Your task to perform on an android device: Open Amazon Image 0: 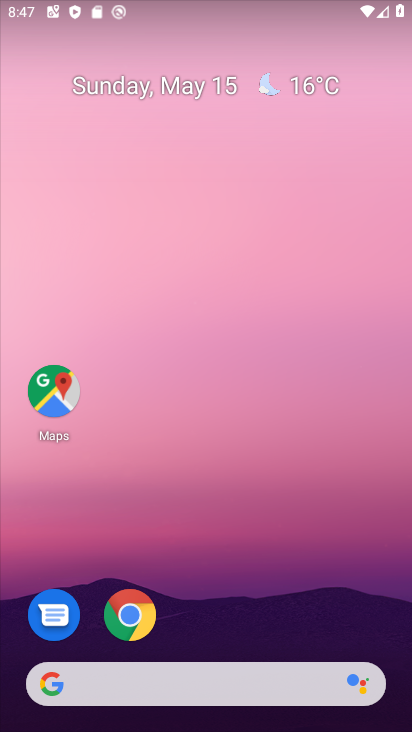
Step 0: click (136, 626)
Your task to perform on an android device: Open Amazon Image 1: 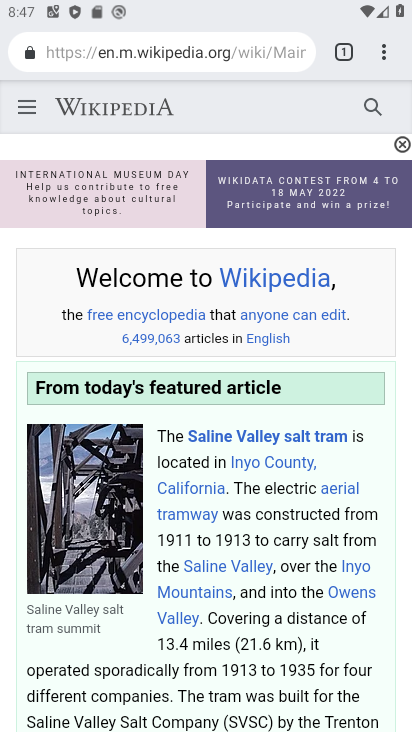
Step 1: click (349, 54)
Your task to perform on an android device: Open Amazon Image 2: 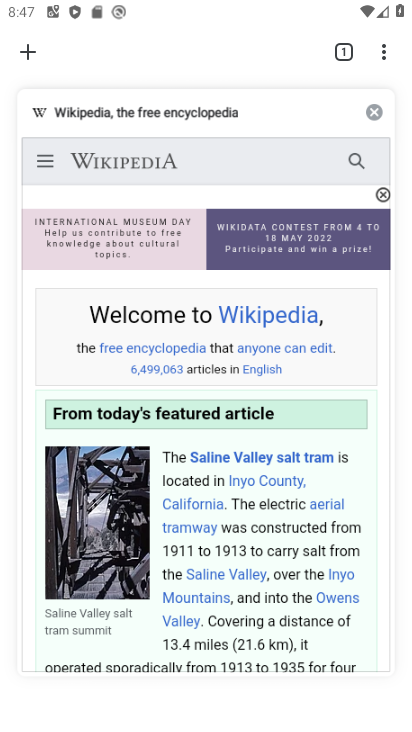
Step 2: click (369, 110)
Your task to perform on an android device: Open Amazon Image 3: 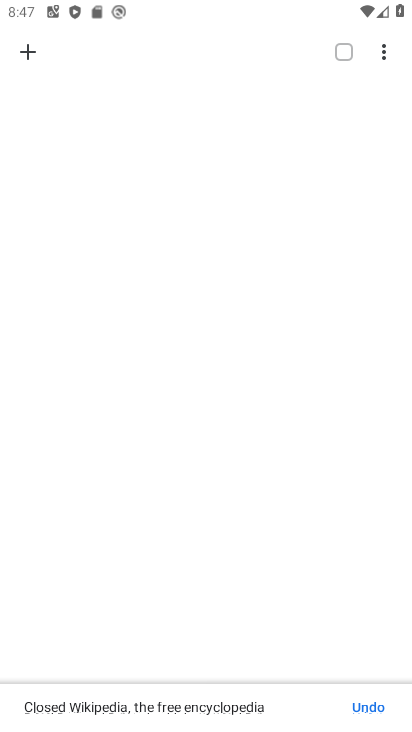
Step 3: click (40, 58)
Your task to perform on an android device: Open Amazon Image 4: 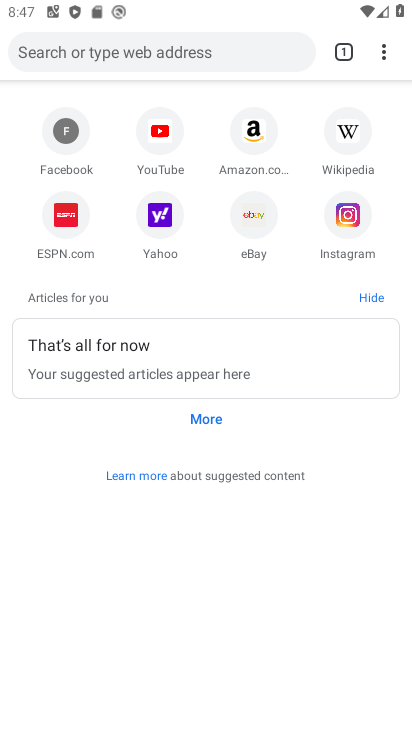
Step 4: click (257, 135)
Your task to perform on an android device: Open Amazon Image 5: 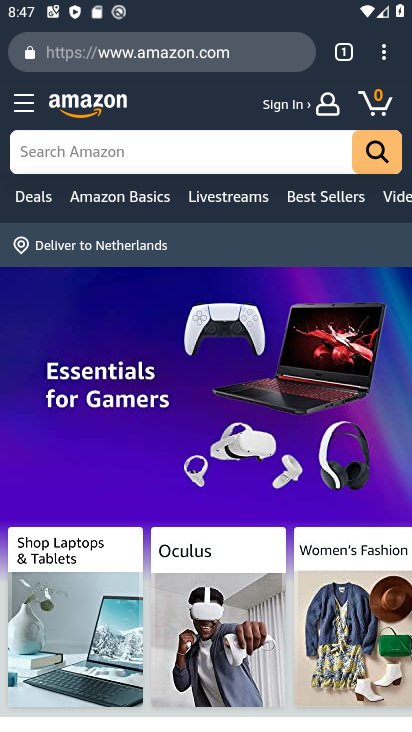
Step 5: task complete